Your task to perform on an android device: turn on wifi Image 0: 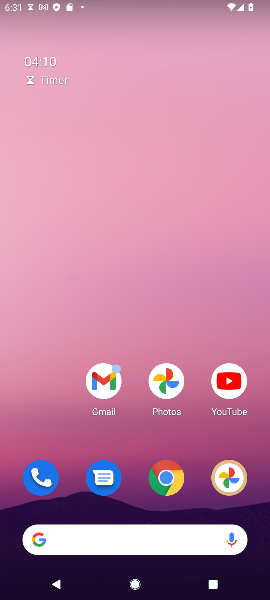
Step 0: drag from (140, 435) to (126, 93)
Your task to perform on an android device: turn on wifi Image 1: 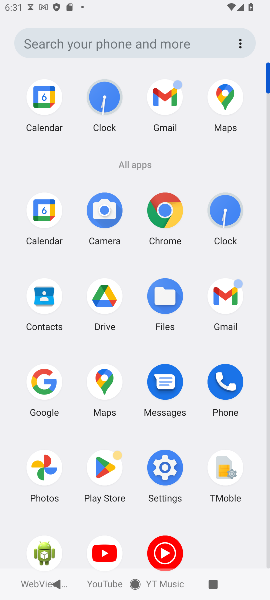
Step 1: click (157, 480)
Your task to perform on an android device: turn on wifi Image 2: 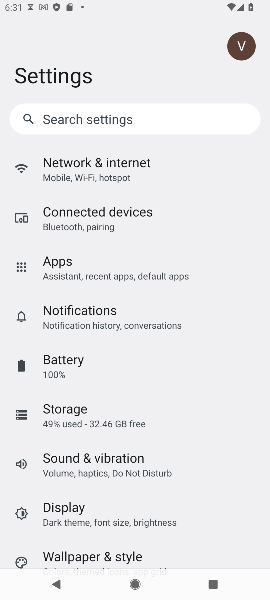
Step 2: click (95, 169)
Your task to perform on an android device: turn on wifi Image 3: 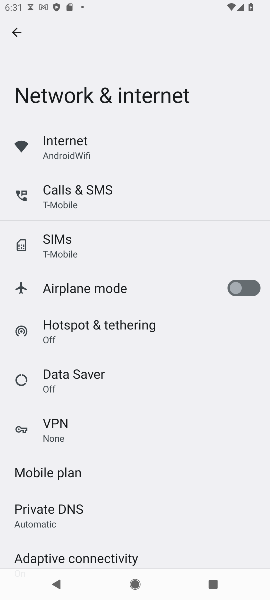
Step 3: click (81, 152)
Your task to perform on an android device: turn on wifi Image 4: 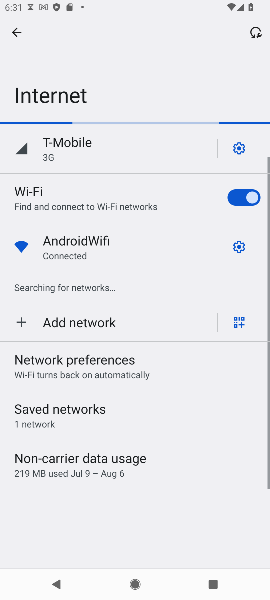
Step 4: task complete